Your task to perform on an android device: uninstall "Gmail" Image 0: 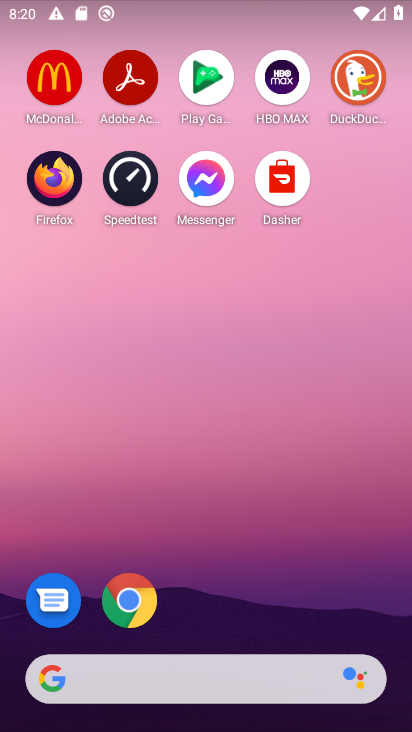
Step 0: drag from (227, 567) to (239, 106)
Your task to perform on an android device: uninstall "Gmail" Image 1: 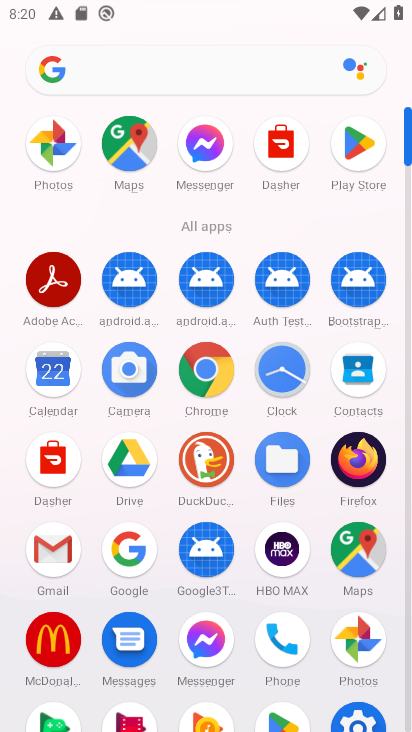
Step 1: click (348, 134)
Your task to perform on an android device: uninstall "Gmail" Image 2: 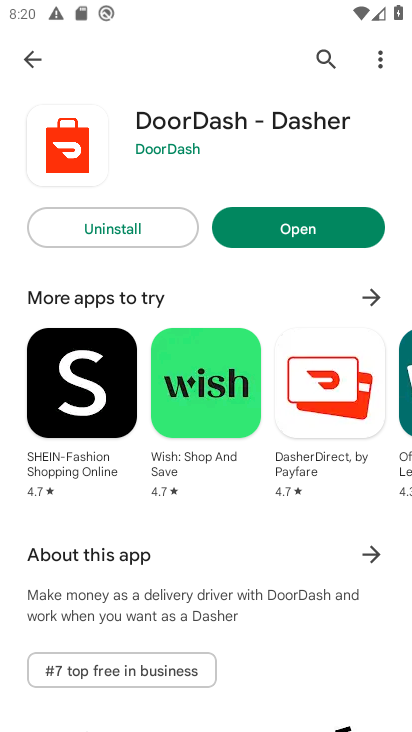
Step 2: click (368, 58)
Your task to perform on an android device: uninstall "Gmail" Image 3: 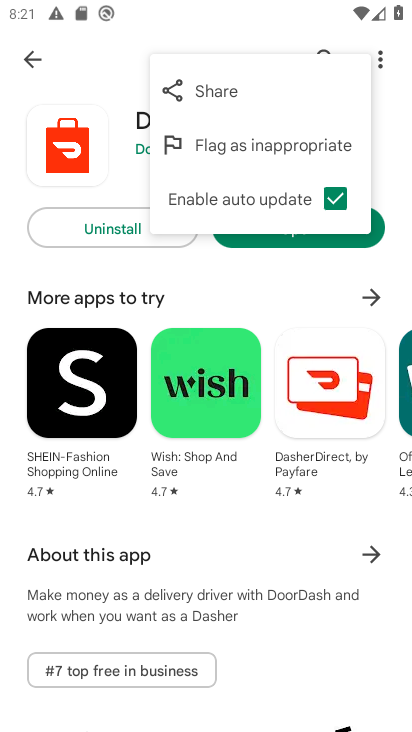
Step 3: click (60, 96)
Your task to perform on an android device: uninstall "Gmail" Image 4: 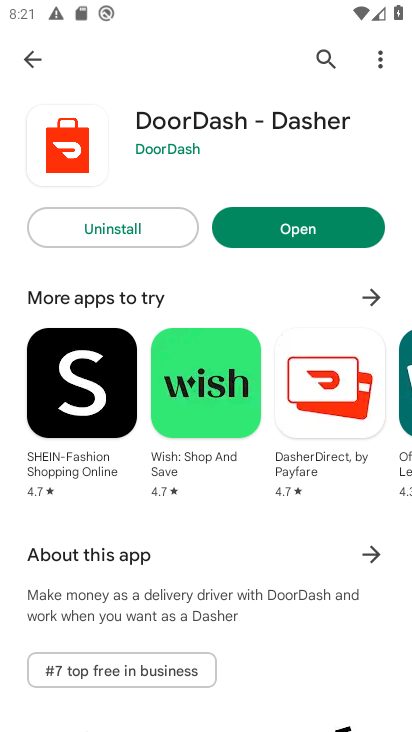
Step 4: click (336, 56)
Your task to perform on an android device: uninstall "Gmail" Image 5: 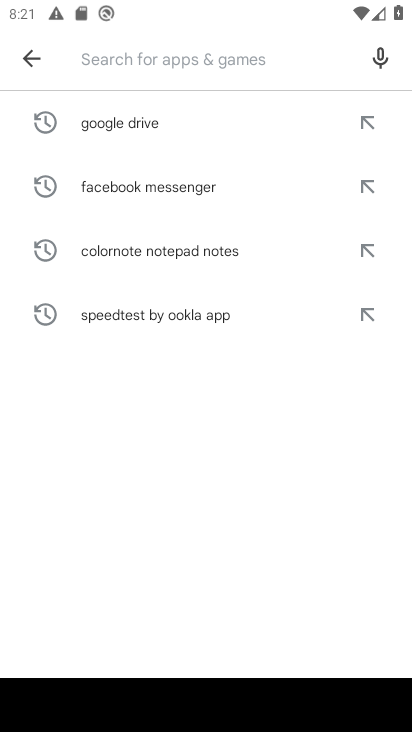
Step 5: type "Gmail"
Your task to perform on an android device: uninstall "Gmail" Image 6: 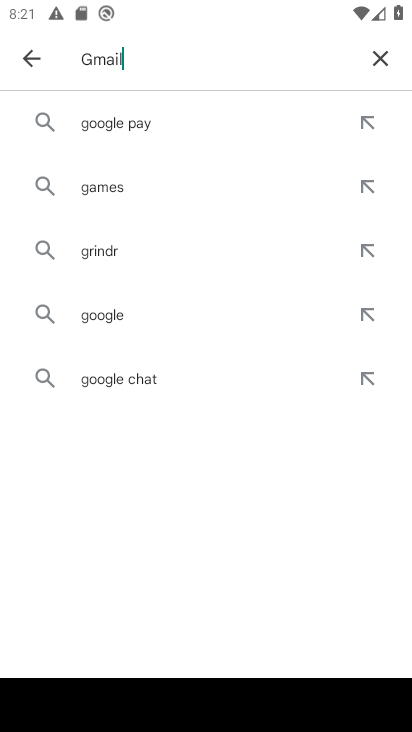
Step 6: type ""
Your task to perform on an android device: uninstall "Gmail" Image 7: 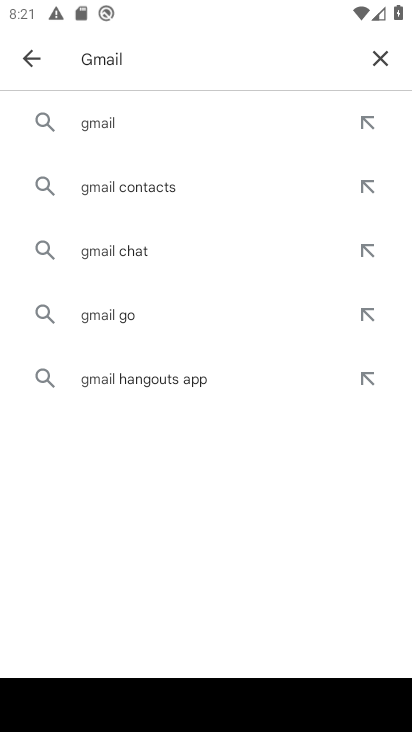
Step 7: click (168, 113)
Your task to perform on an android device: uninstall "Gmail" Image 8: 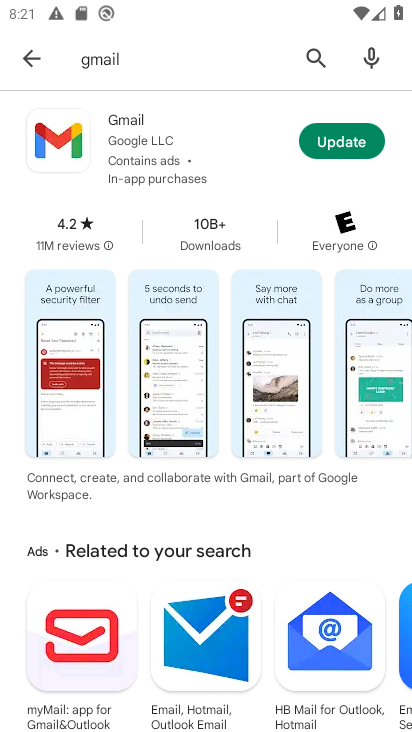
Step 8: click (188, 127)
Your task to perform on an android device: uninstall "Gmail" Image 9: 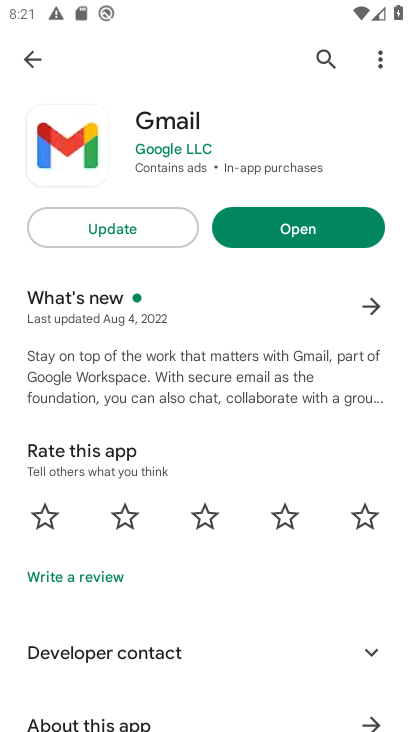
Step 9: click (155, 225)
Your task to perform on an android device: uninstall "Gmail" Image 10: 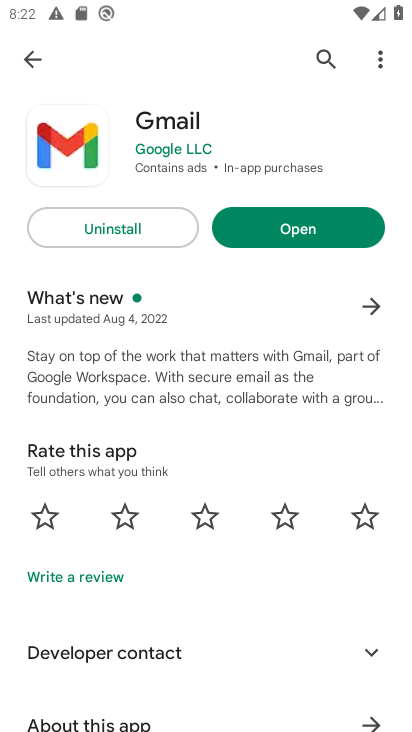
Step 10: click (155, 225)
Your task to perform on an android device: uninstall "Gmail" Image 11: 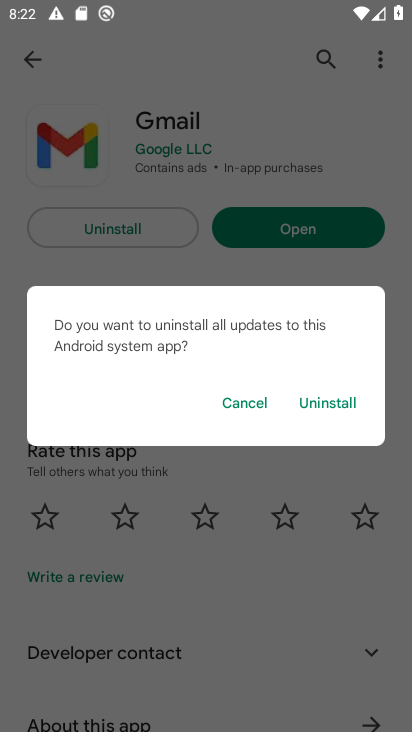
Step 11: click (314, 391)
Your task to perform on an android device: uninstall "Gmail" Image 12: 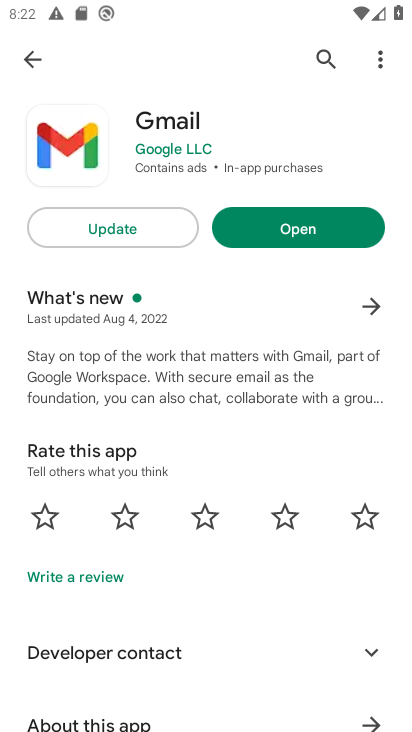
Step 12: task complete